Your task to perform on an android device: Open ESPN.com Image 0: 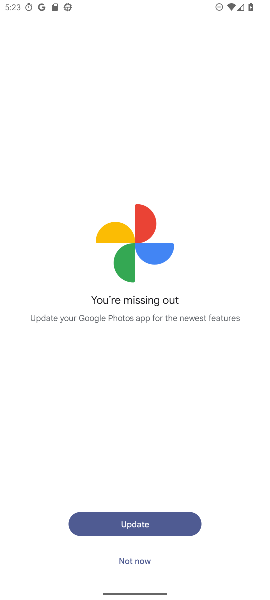
Step 0: press home button
Your task to perform on an android device: Open ESPN.com Image 1: 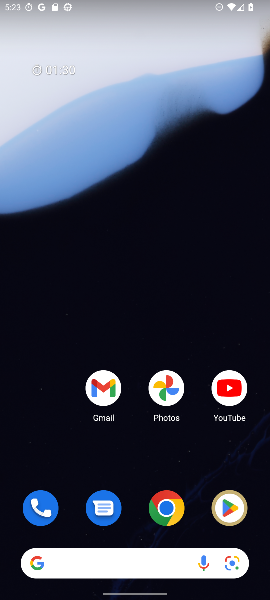
Step 1: drag from (180, 416) to (146, 1)
Your task to perform on an android device: Open ESPN.com Image 2: 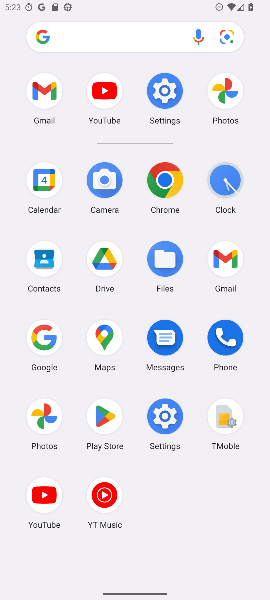
Step 2: click (100, 26)
Your task to perform on an android device: Open ESPN.com Image 3: 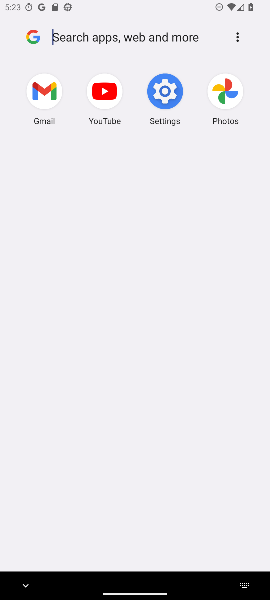
Step 3: type "ESPN.com"
Your task to perform on an android device: Open ESPN.com Image 4: 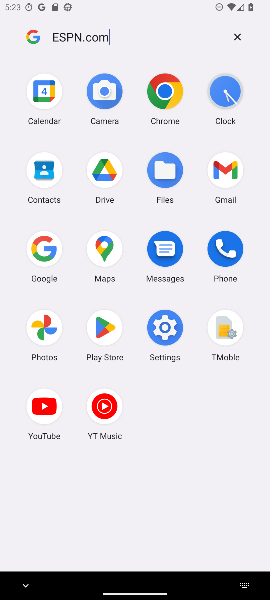
Step 4: click (239, 39)
Your task to perform on an android device: Open ESPN.com Image 5: 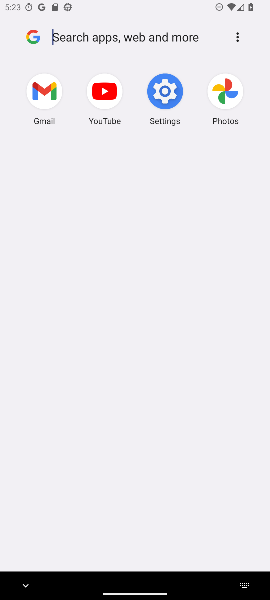
Step 5: press home button
Your task to perform on an android device: Open ESPN.com Image 6: 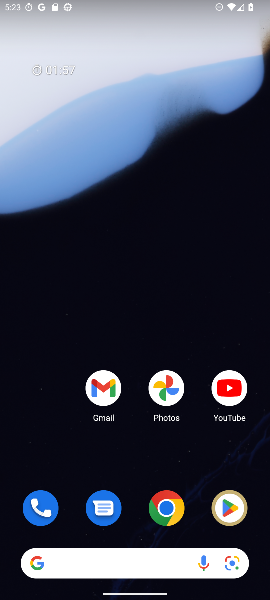
Step 6: click (159, 505)
Your task to perform on an android device: Open ESPN.com Image 7: 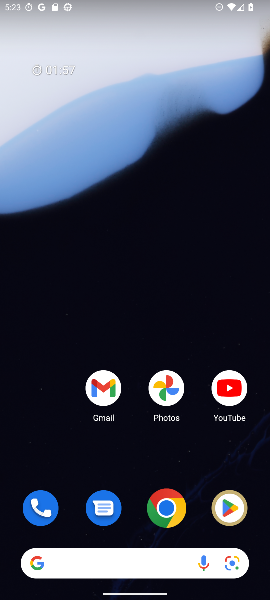
Step 7: click (159, 505)
Your task to perform on an android device: Open ESPN.com Image 8: 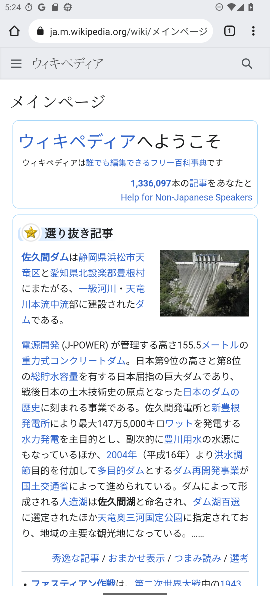
Step 8: click (197, 25)
Your task to perform on an android device: Open ESPN.com Image 9: 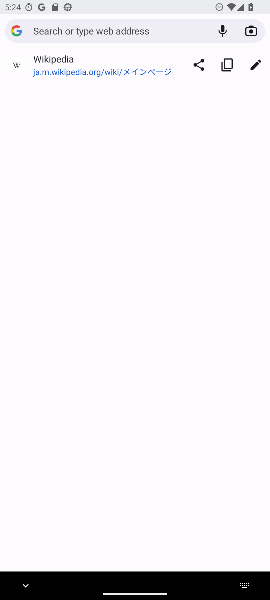
Step 9: type "ESPN.com"
Your task to perform on an android device: Open ESPN.com Image 10: 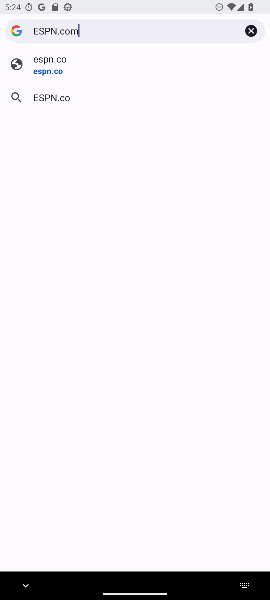
Step 10: type ""
Your task to perform on an android device: Open ESPN.com Image 11: 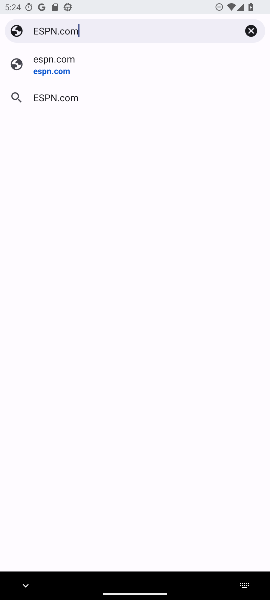
Step 11: click (59, 57)
Your task to perform on an android device: Open ESPN.com Image 12: 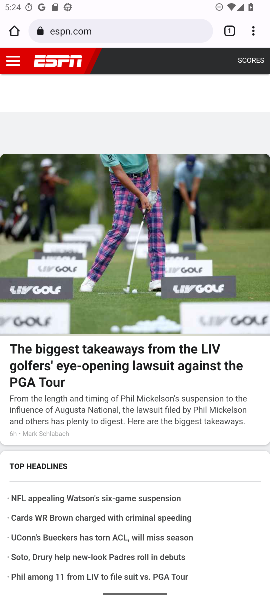
Step 12: task complete